Your task to perform on an android device: Search for "apple airpods" on walmart, select the first entry, and add it to the cart. Image 0: 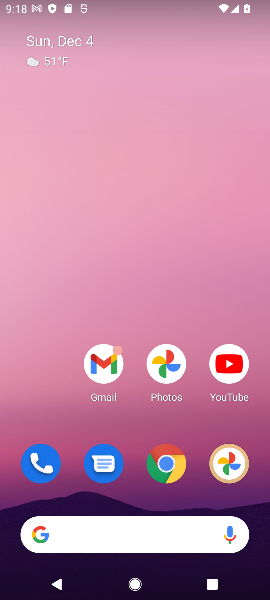
Step 0: click (100, 539)
Your task to perform on an android device: Search for "apple airpods" on walmart, select the first entry, and add it to the cart. Image 1: 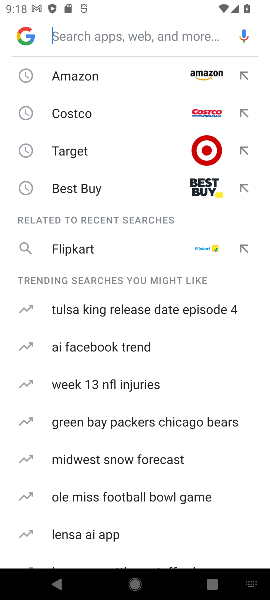
Step 1: type "walmart"
Your task to perform on an android device: Search for "apple airpods" on walmart, select the first entry, and add it to the cart. Image 2: 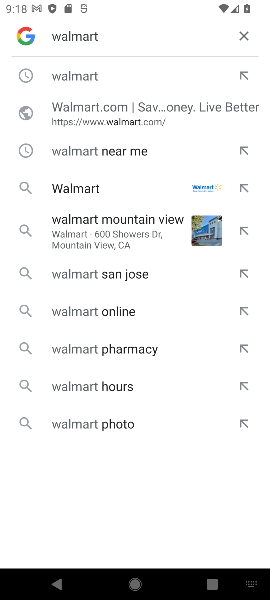
Step 2: click (87, 62)
Your task to perform on an android device: Search for "apple airpods" on walmart, select the first entry, and add it to the cart. Image 3: 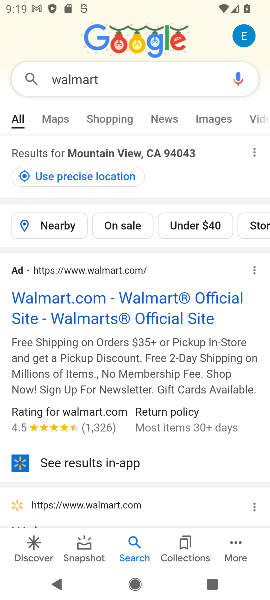
Step 3: click (65, 292)
Your task to perform on an android device: Search for "apple airpods" on walmart, select the first entry, and add it to the cart. Image 4: 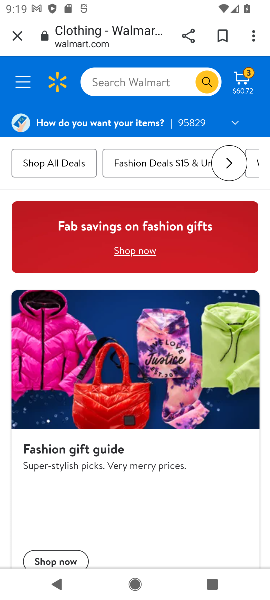
Step 4: task complete